Your task to perform on an android device: turn off location Image 0: 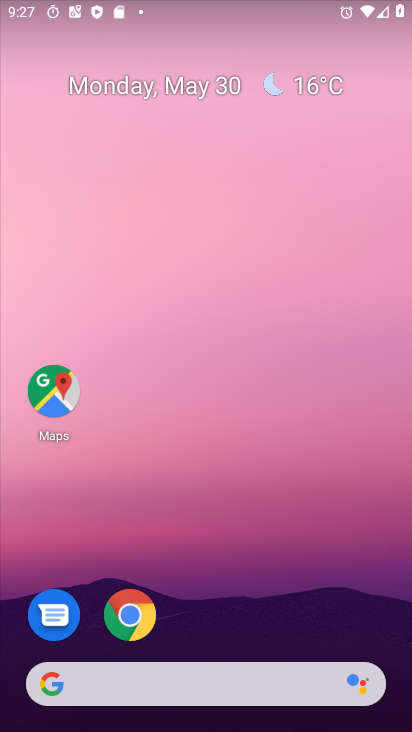
Step 0: drag from (319, 617) to (303, 71)
Your task to perform on an android device: turn off location Image 1: 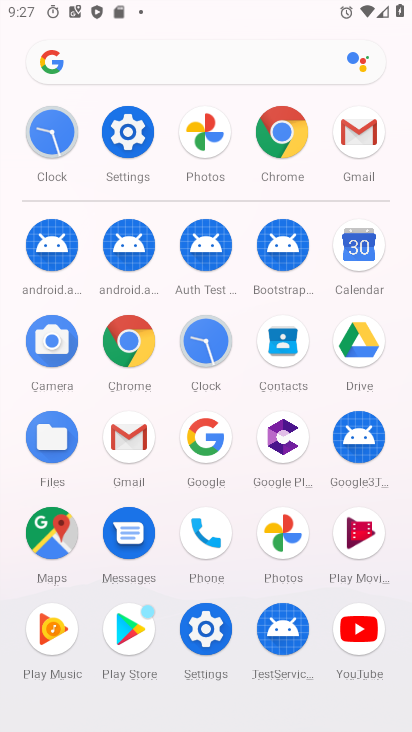
Step 1: click (113, 138)
Your task to perform on an android device: turn off location Image 2: 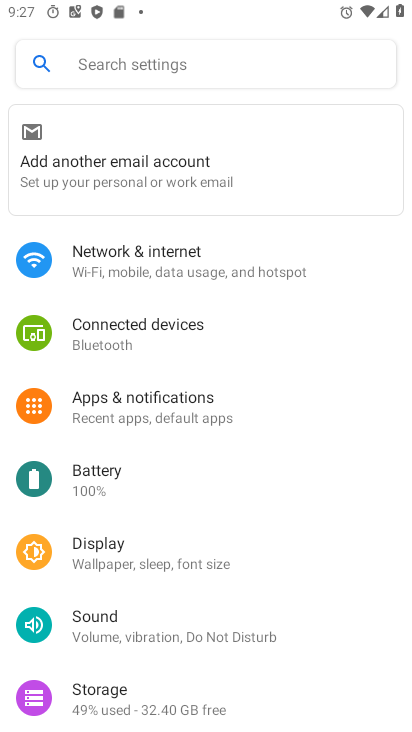
Step 2: drag from (195, 635) to (286, 302)
Your task to perform on an android device: turn off location Image 3: 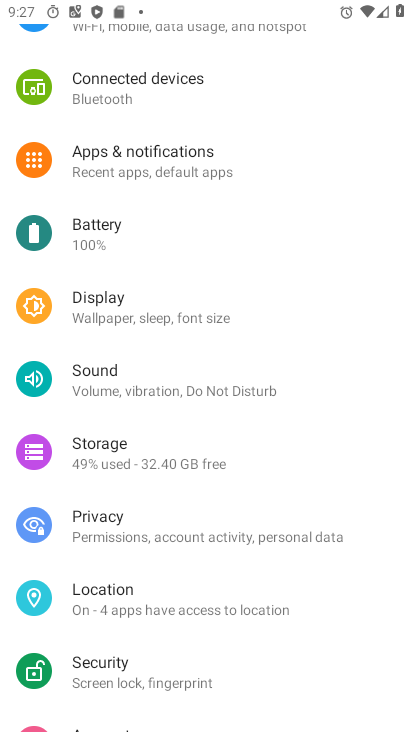
Step 3: drag from (143, 599) to (151, 285)
Your task to perform on an android device: turn off location Image 4: 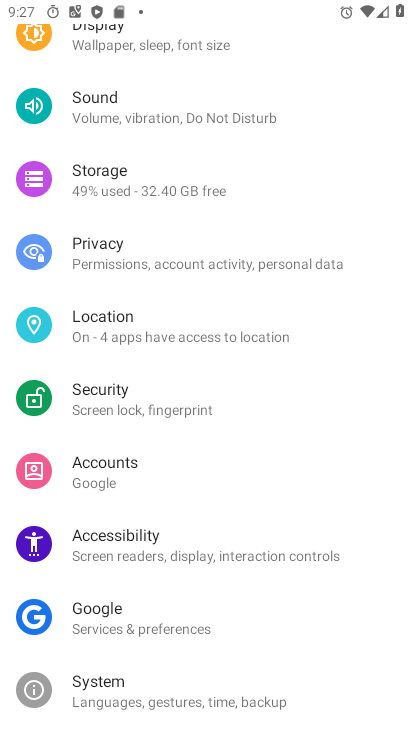
Step 4: click (146, 324)
Your task to perform on an android device: turn off location Image 5: 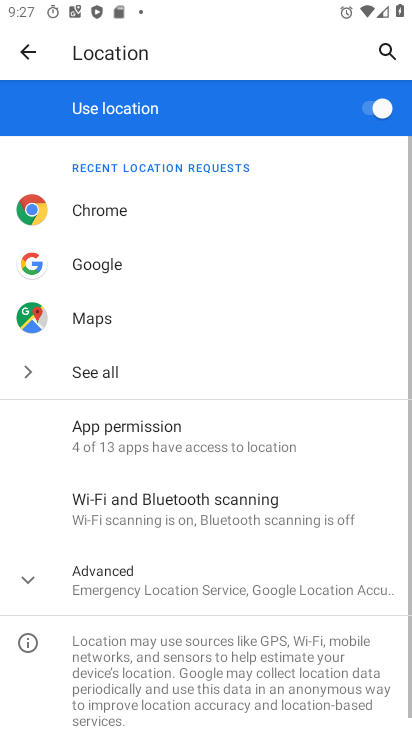
Step 5: click (373, 118)
Your task to perform on an android device: turn off location Image 6: 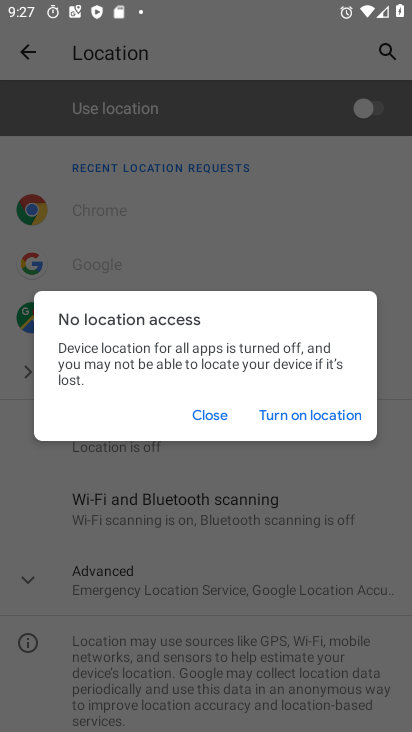
Step 6: task complete